Your task to perform on an android device: Open display settings Image 0: 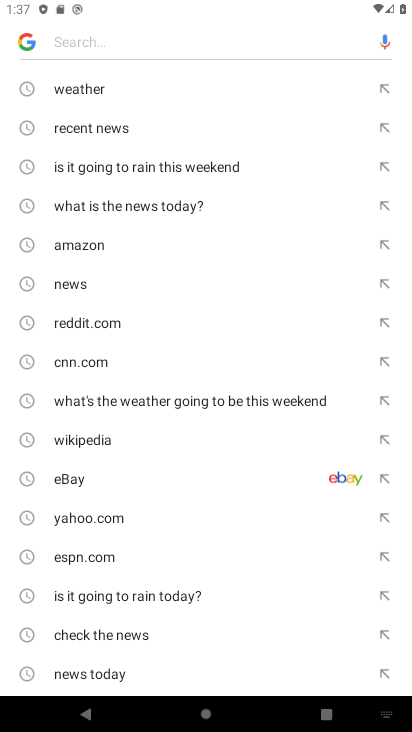
Step 0: press home button
Your task to perform on an android device: Open display settings Image 1: 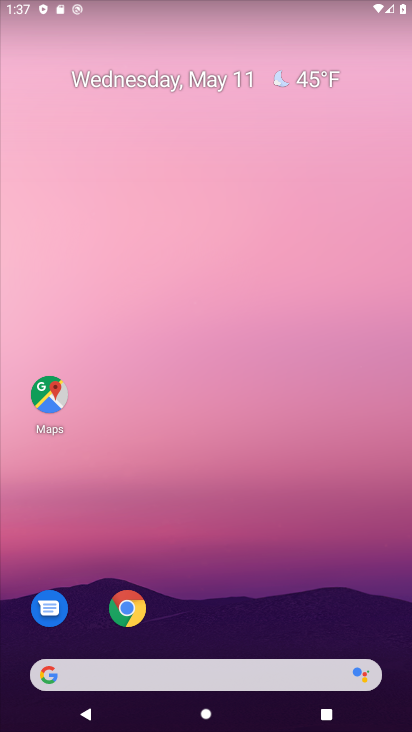
Step 1: drag from (232, 606) to (242, 88)
Your task to perform on an android device: Open display settings Image 2: 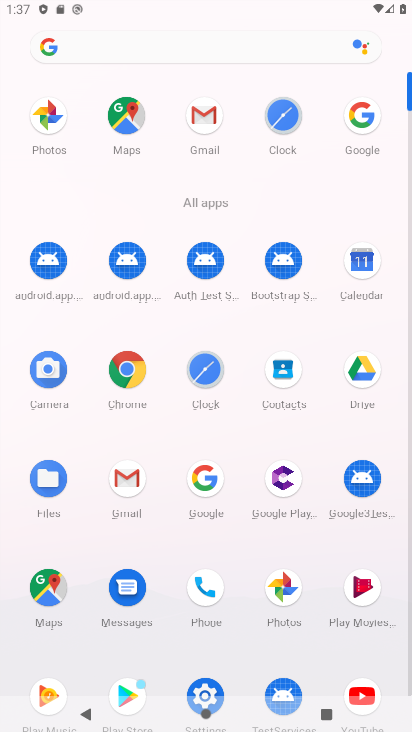
Step 2: drag from (176, 651) to (163, 342)
Your task to perform on an android device: Open display settings Image 3: 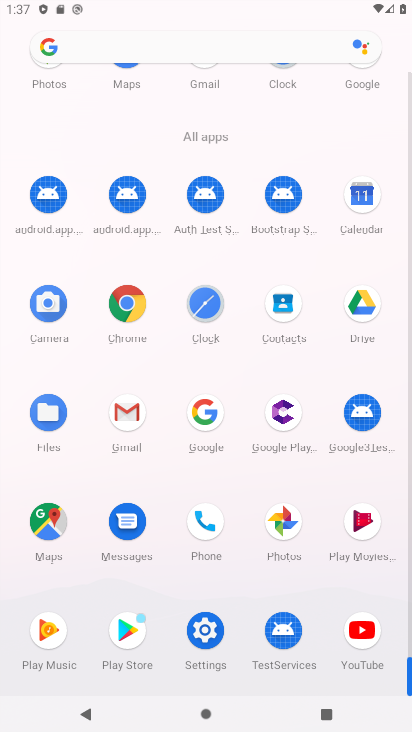
Step 3: click (210, 629)
Your task to perform on an android device: Open display settings Image 4: 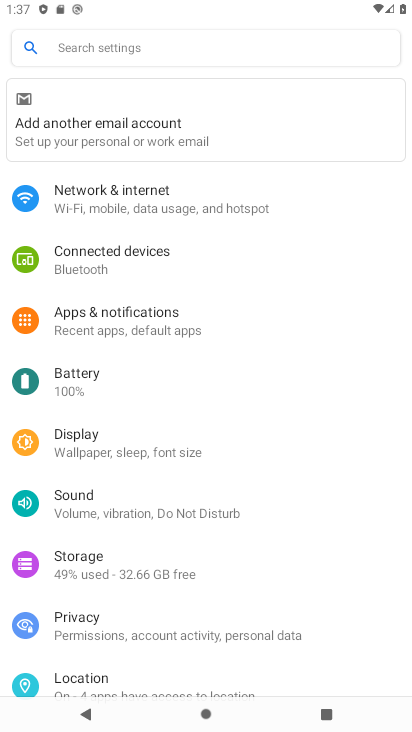
Step 4: click (108, 442)
Your task to perform on an android device: Open display settings Image 5: 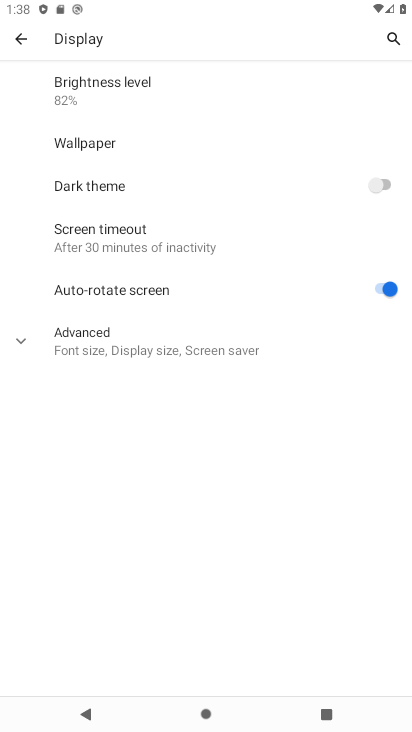
Step 5: task complete